Your task to perform on an android device: move an email to a new category in the gmail app Image 0: 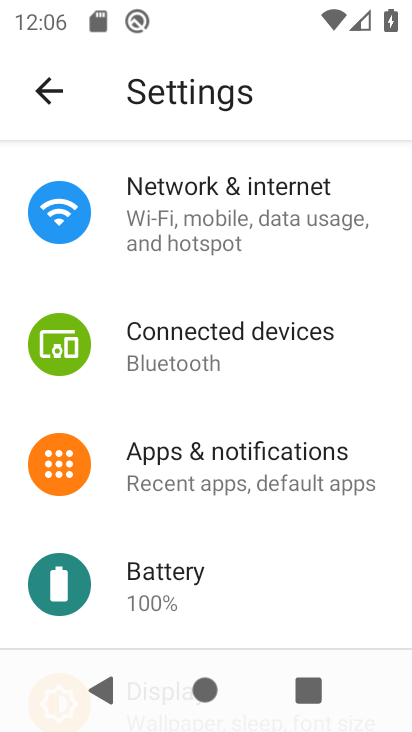
Step 0: press home button
Your task to perform on an android device: move an email to a new category in the gmail app Image 1: 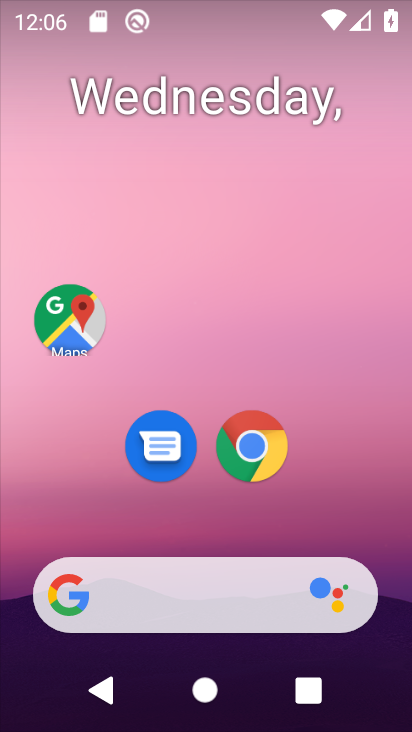
Step 1: drag from (378, 575) to (337, 28)
Your task to perform on an android device: move an email to a new category in the gmail app Image 2: 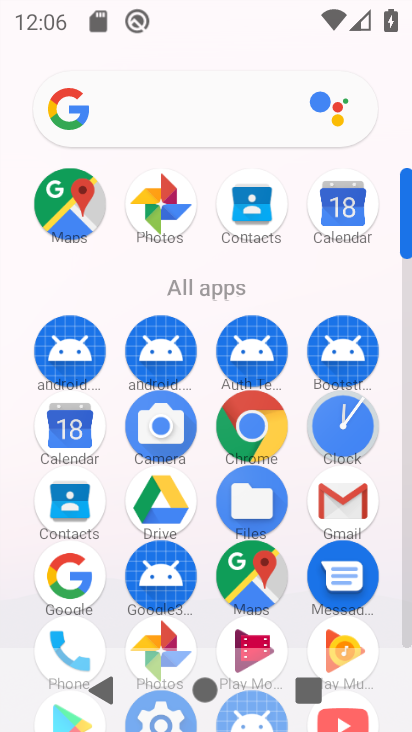
Step 2: click (332, 504)
Your task to perform on an android device: move an email to a new category in the gmail app Image 3: 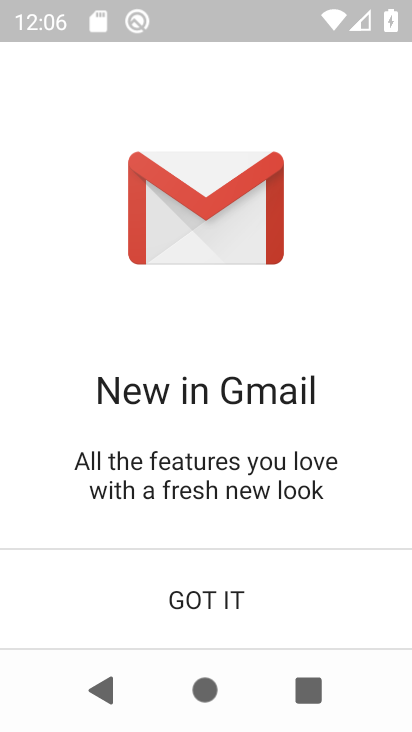
Step 3: click (188, 601)
Your task to perform on an android device: move an email to a new category in the gmail app Image 4: 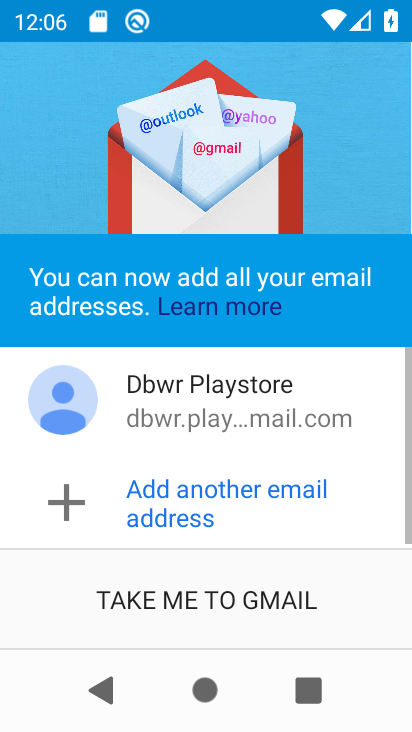
Step 4: click (188, 601)
Your task to perform on an android device: move an email to a new category in the gmail app Image 5: 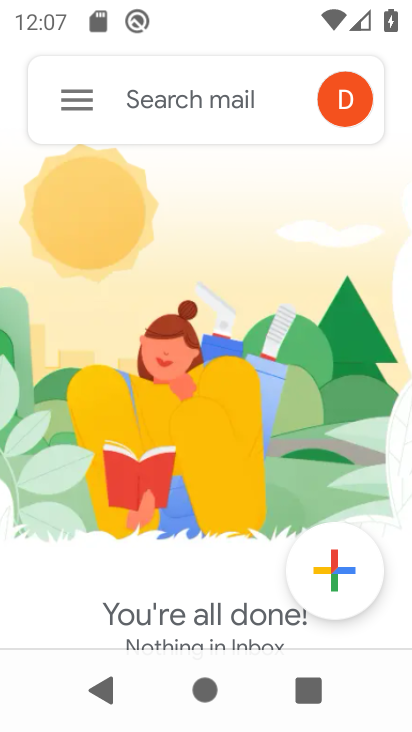
Step 5: click (54, 91)
Your task to perform on an android device: move an email to a new category in the gmail app Image 6: 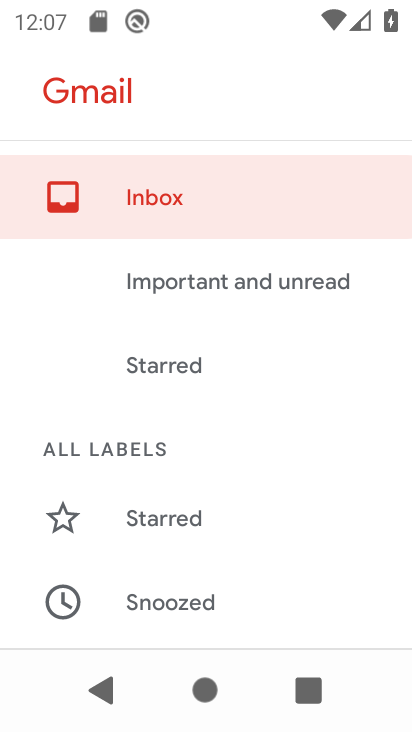
Step 6: drag from (202, 507) to (182, 199)
Your task to perform on an android device: move an email to a new category in the gmail app Image 7: 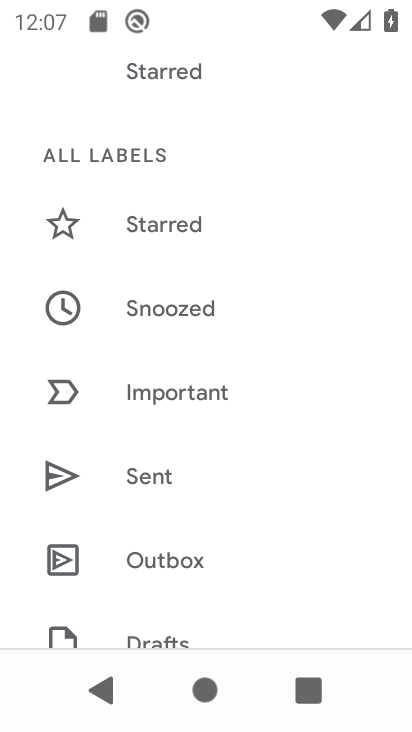
Step 7: drag from (191, 377) to (170, 161)
Your task to perform on an android device: move an email to a new category in the gmail app Image 8: 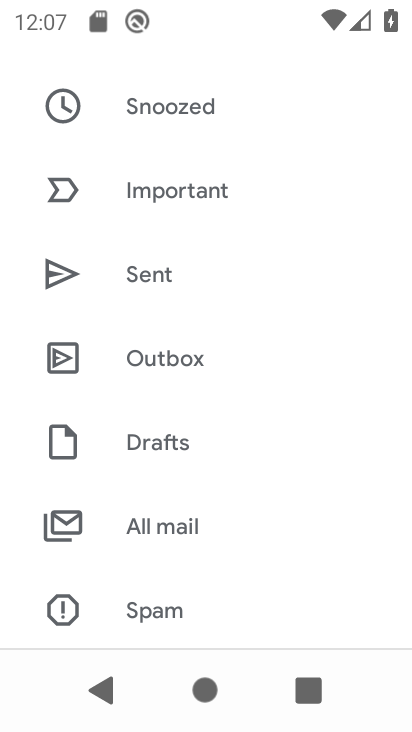
Step 8: click (188, 527)
Your task to perform on an android device: move an email to a new category in the gmail app Image 9: 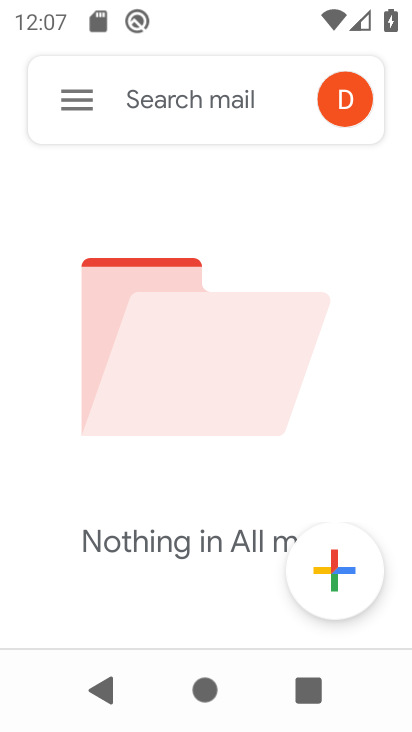
Step 9: task complete